Your task to perform on an android device: Open settings on Google Maps Image 0: 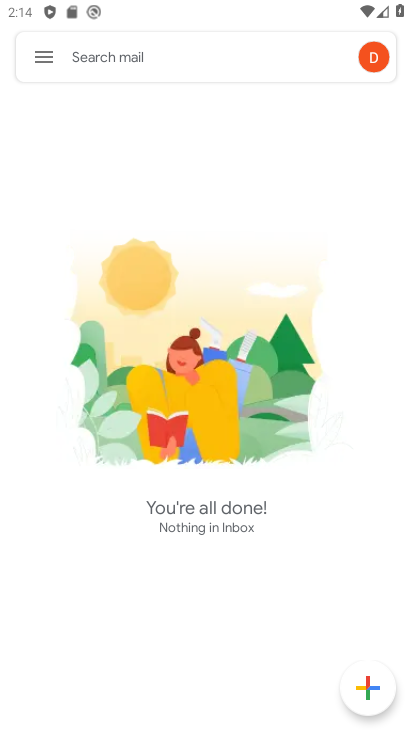
Step 0: press home button
Your task to perform on an android device: Open settings on Google Maps Image 1: 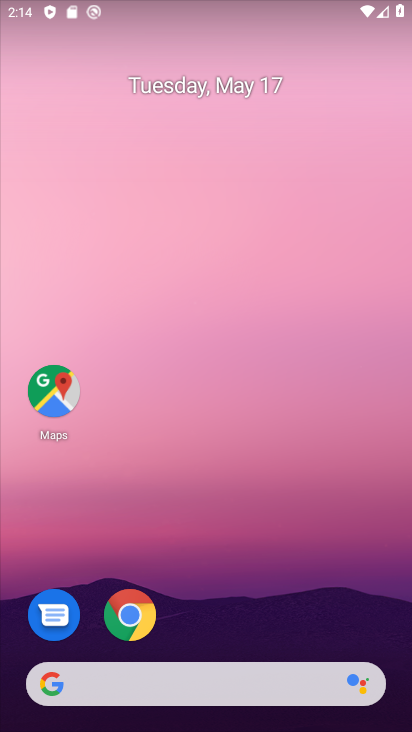
Step 1: drag from (218, 636) to (260, 109)
Your task to perform on an android device: Open settings on Google Maps Image 2: 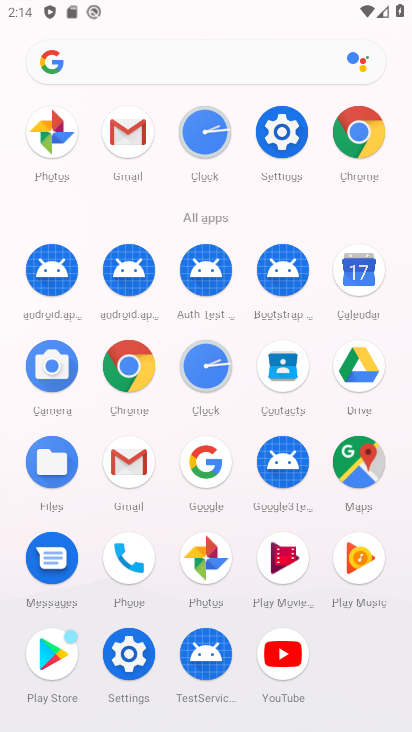
Step 2: click (355, 463)
Your task to perform on an android device: Open settings on Google Maps Image 3: 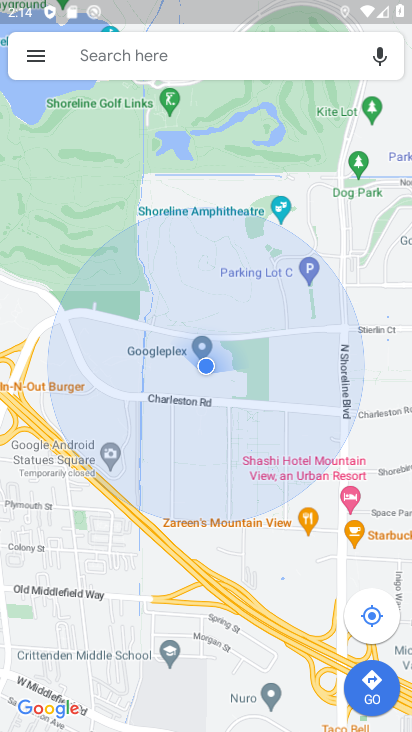
Step 3: click (30, 52)
Your task to perform on an android device: Open settings on Google Maps Image 4: 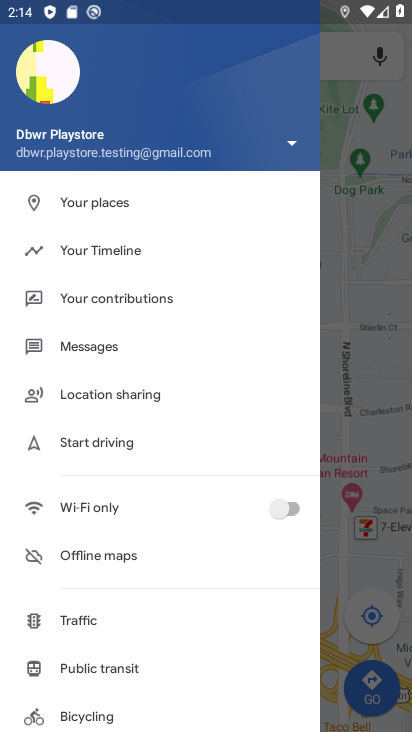
Step 4: drag from (135, 680) to (159, 117)
Your task to perform on an android device: Open settings on Google Maps Image 5: 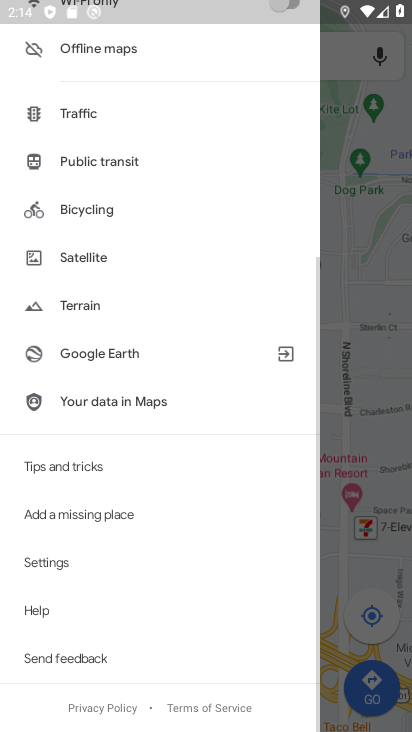
Step 5: click (80, 558)
Your task to perform on an android device: Open settings on Google Maps Image 6: 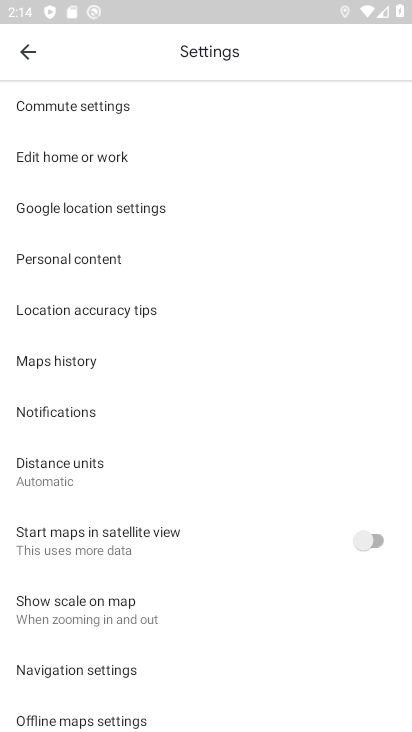
Step 6: task complete